Your task to perform on an android device: Go to network settings Image 0: 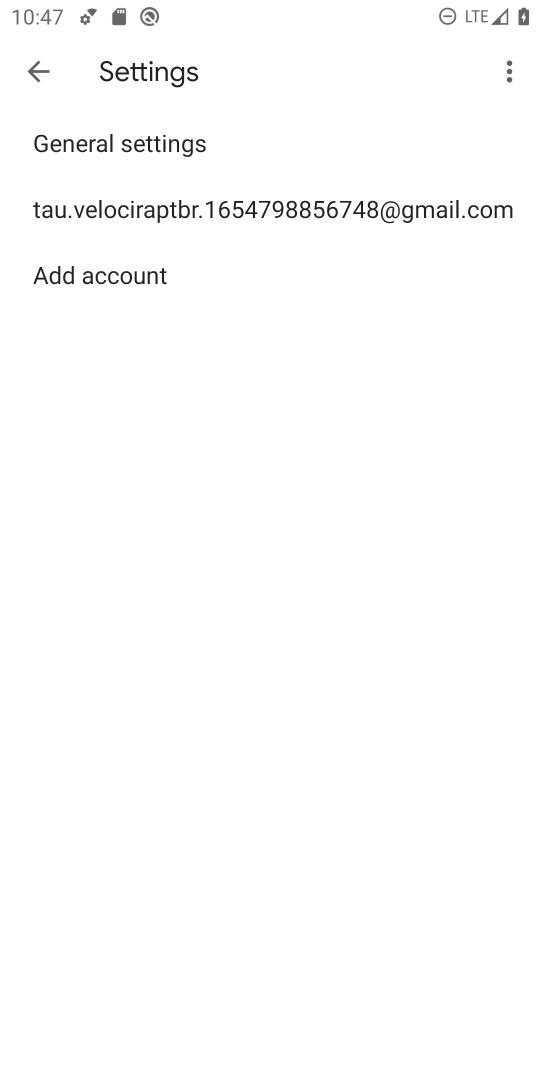
Step 0: press home button
Your task to perform on an android device: Go to network settings Image 1: 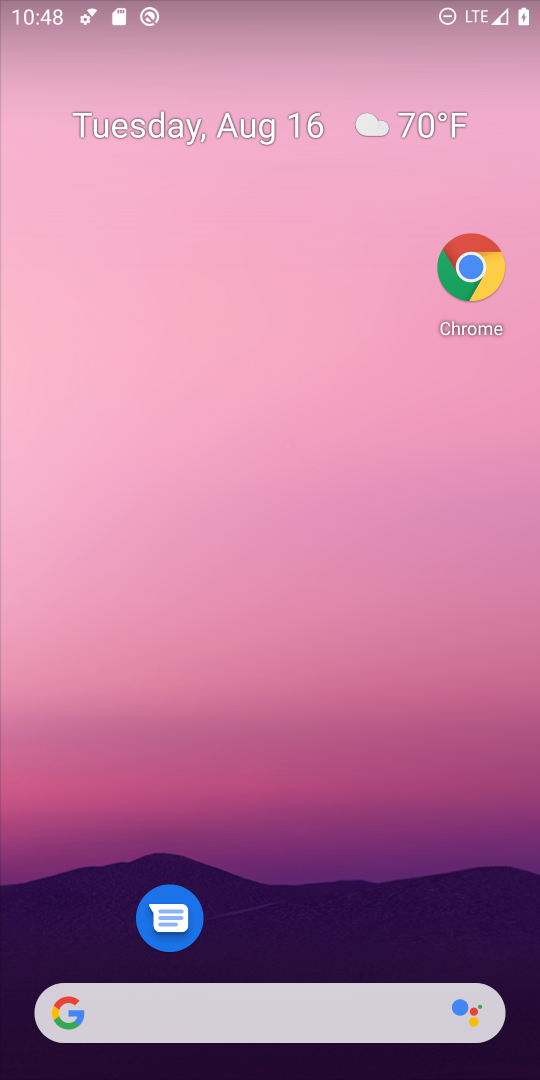
Step 1: drag from (365, 952) to (369, 241)
Your task to perform on an android device: Go to network settings Image 2: 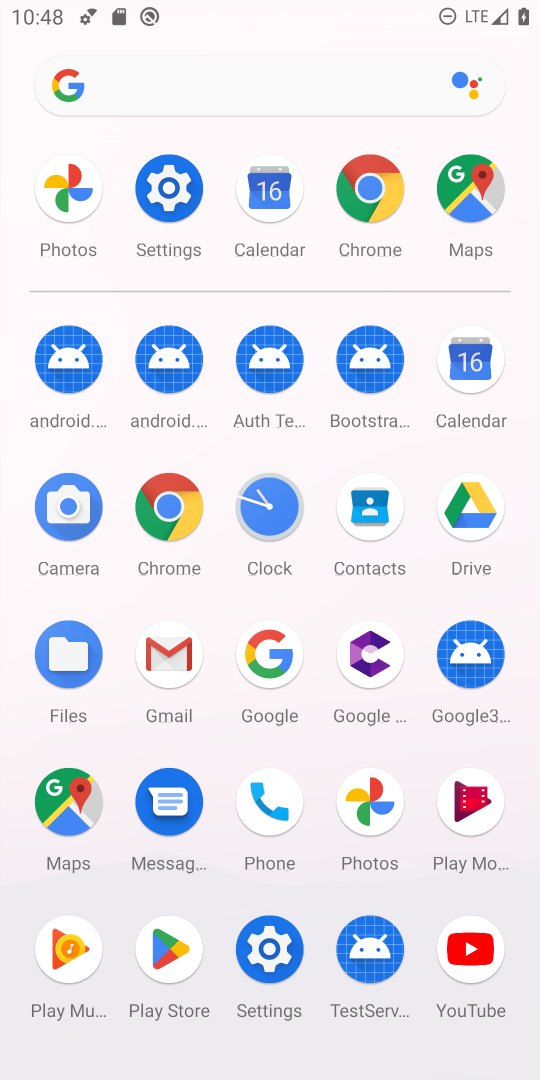
Step 2: click (174, 233)
Your task to perform on an android device: Go to network settings Image 3: 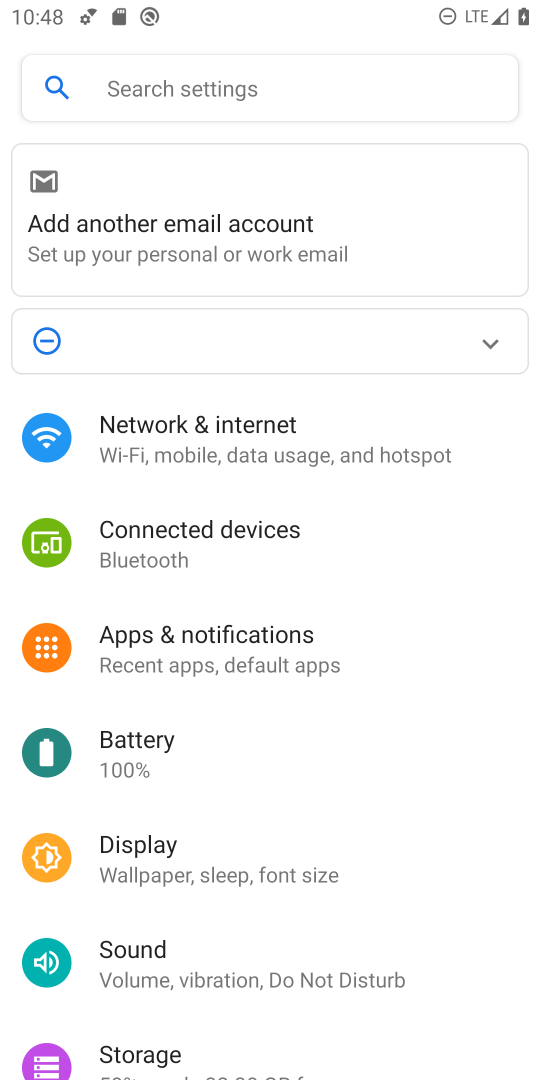
Step 3: click (263, 441)
Your task to perform on an android device: Go to network settings Image 4: 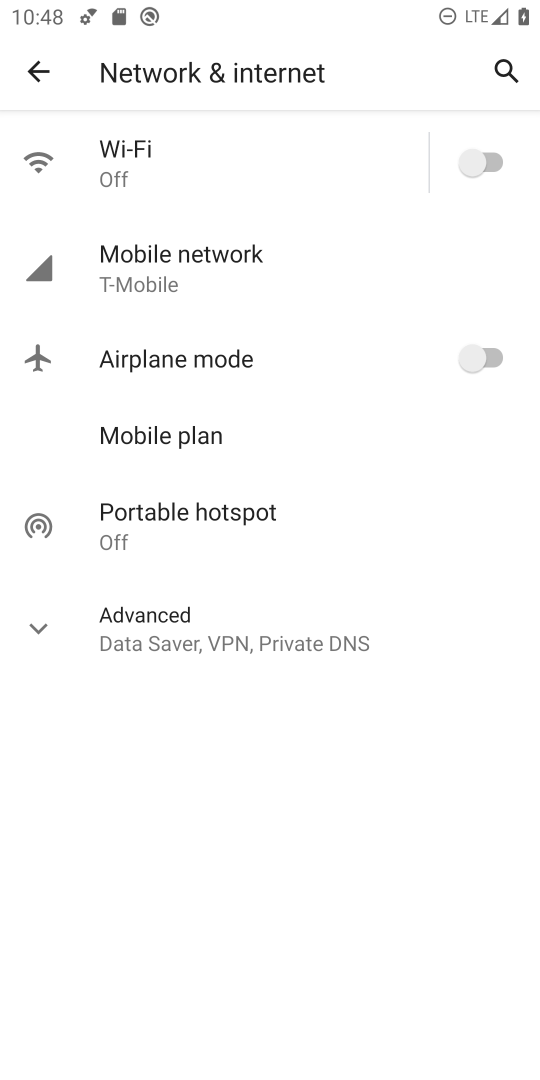
Step 4: click (203, 257)
Your task to perform on an android device: Go to network settings Image 5: 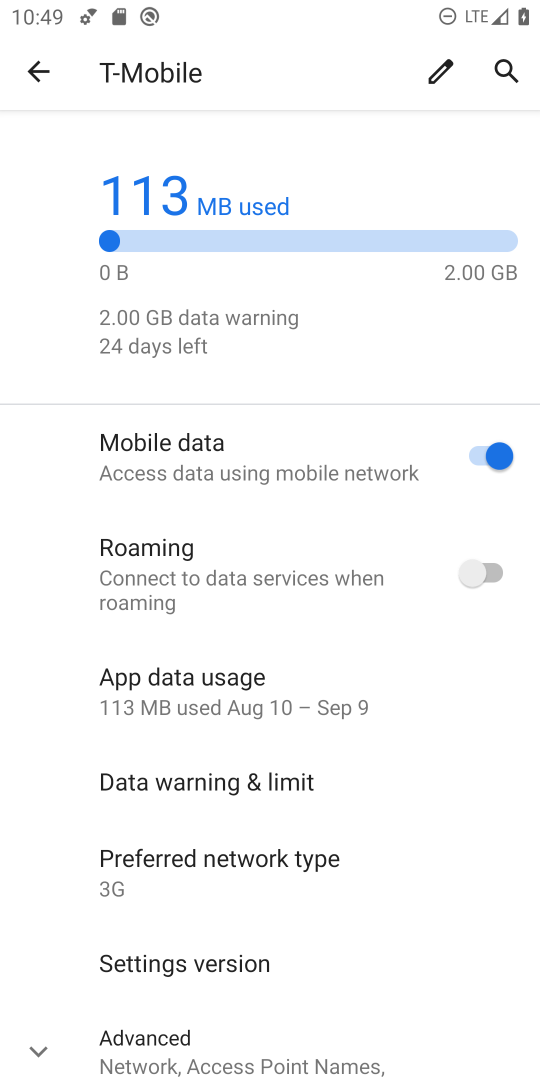
Step 5: task complete